Your task to perform on an android device: Check out the new ikea catalog. Image 0: 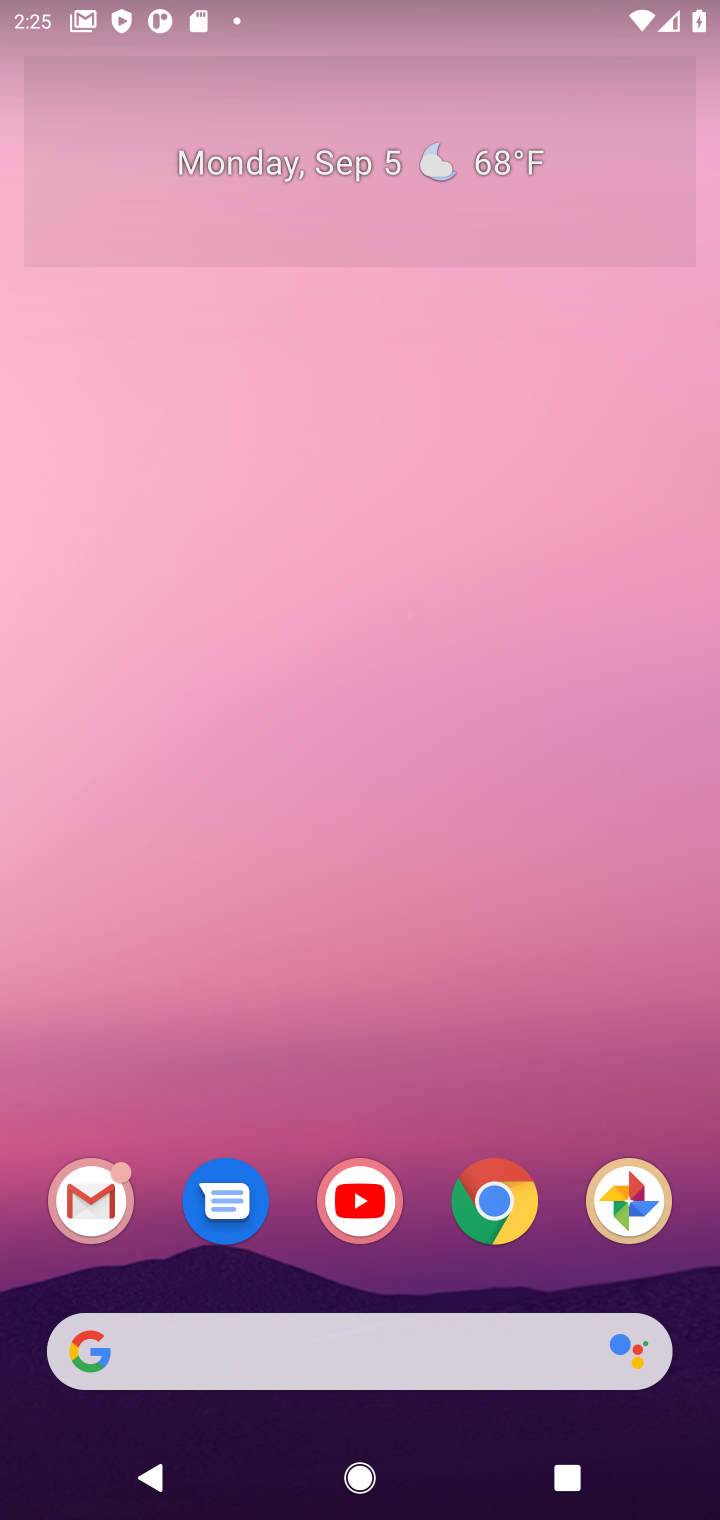
Step 0: click (492, 1209)
Your task to perform on an android device: Check out the new ikea catalog. Image 1: 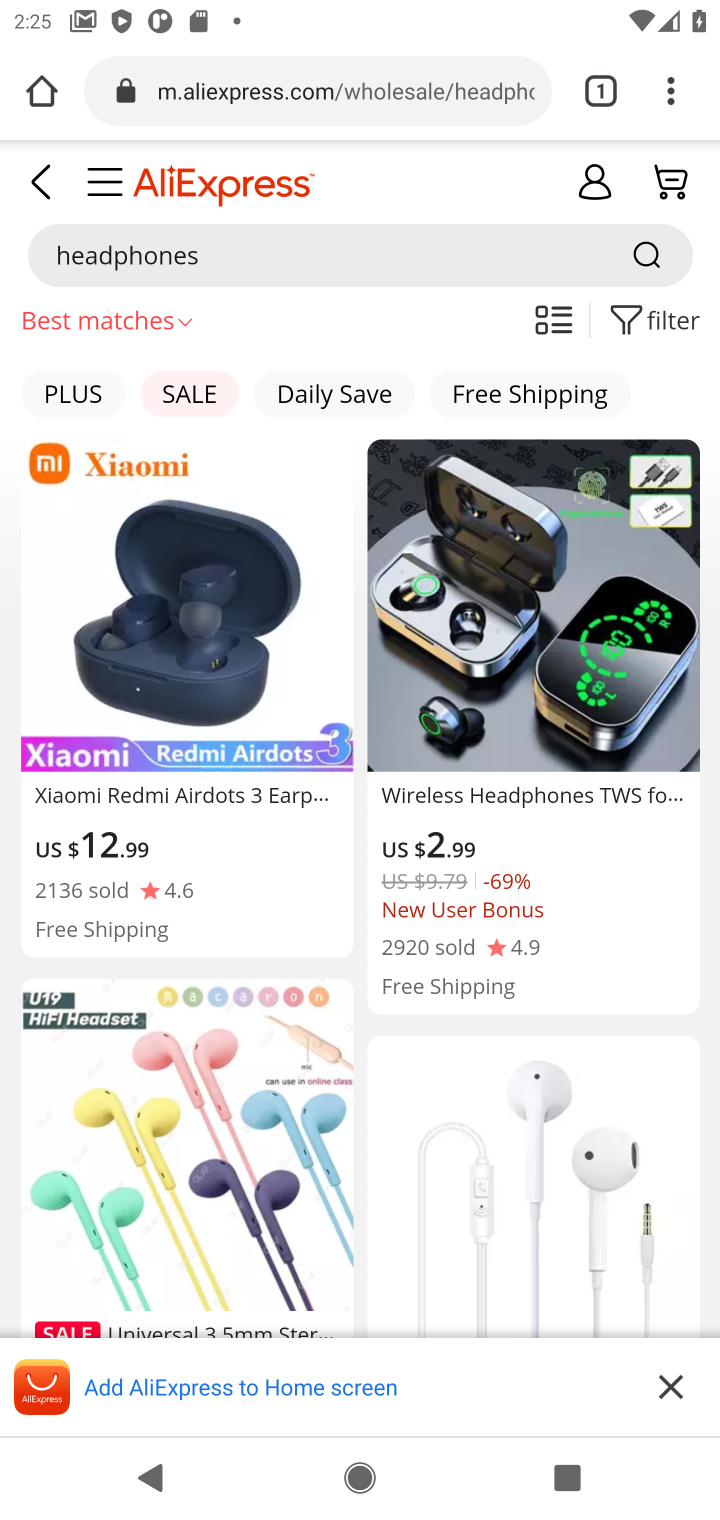
Step 1: click (411, 81)
Your task to perform on an android device: Check out the new ikea catalog. Image 2: 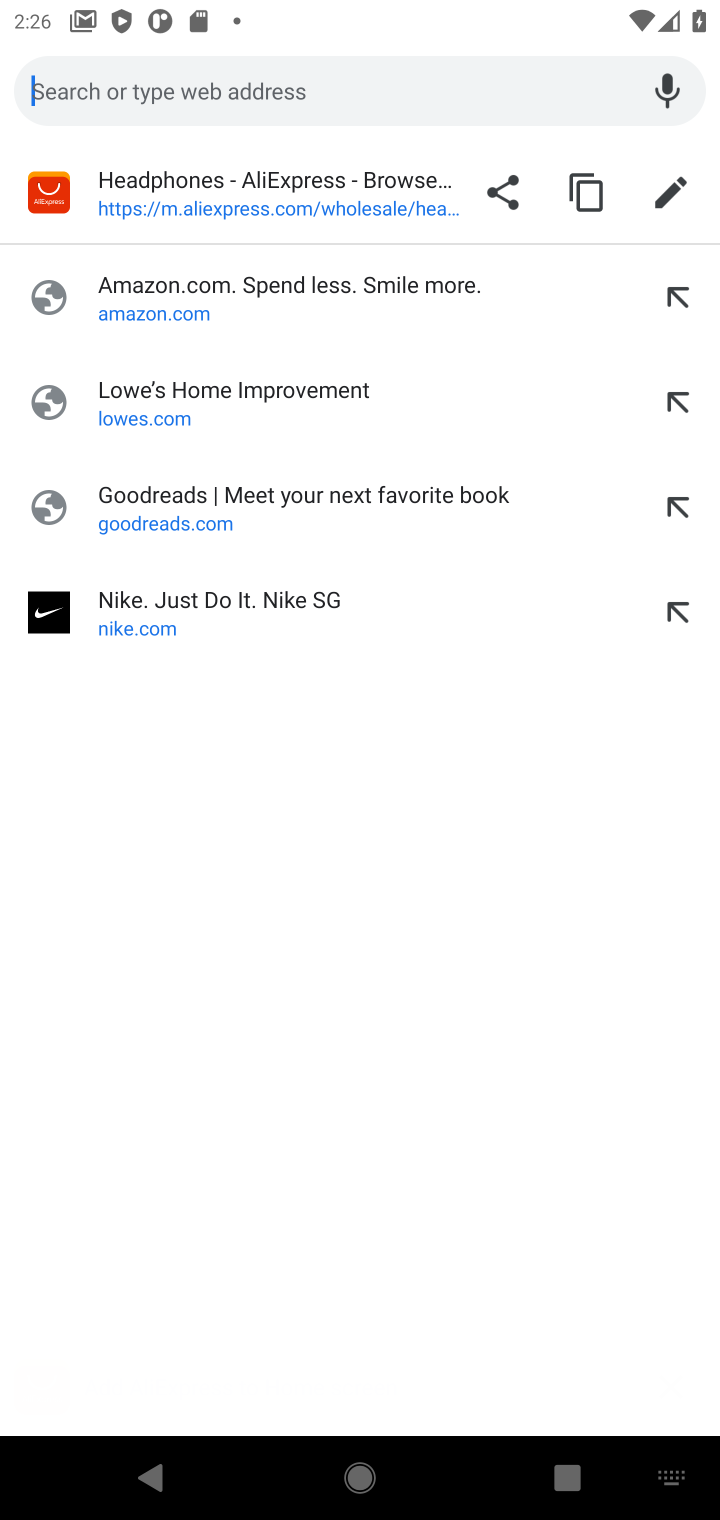
Step 2: type " ikea catalog"
Your task to perform on an android device: Check out the new ikea catalog. Image 3: 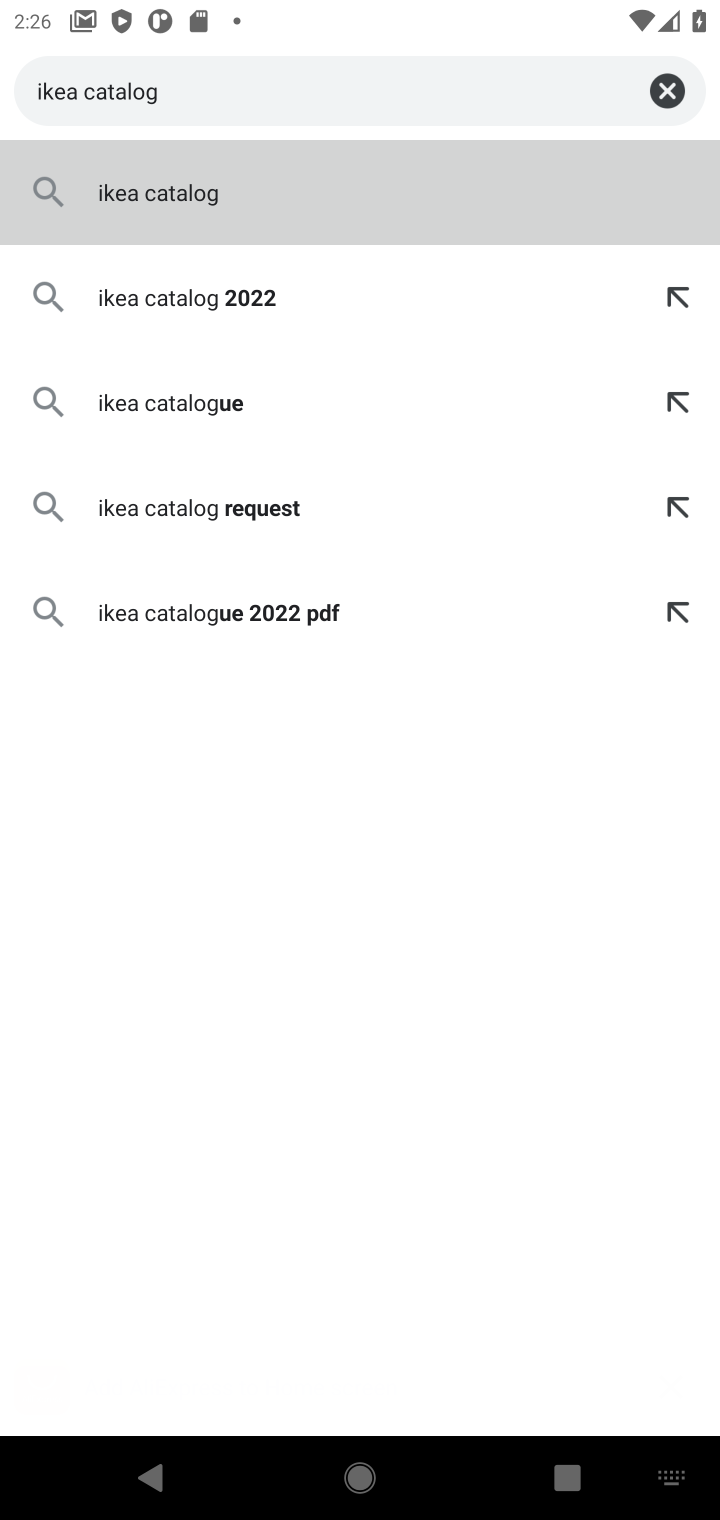
Step 3: press enter
Your task to perform on an android device: Check out the new ikea catalog. Image 4: 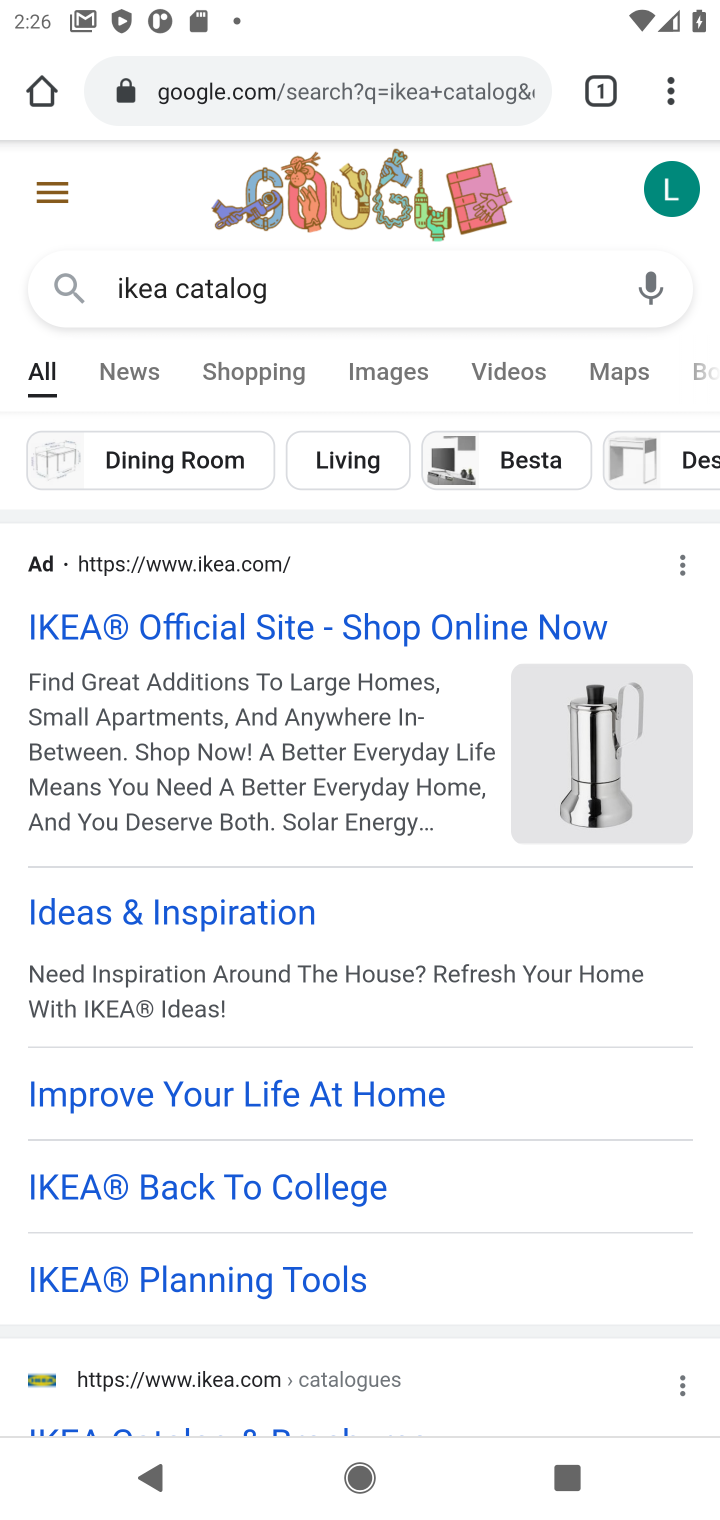
Step 4: task complete